Your task to perform on an android device: Turn on the flashlight Image 0: 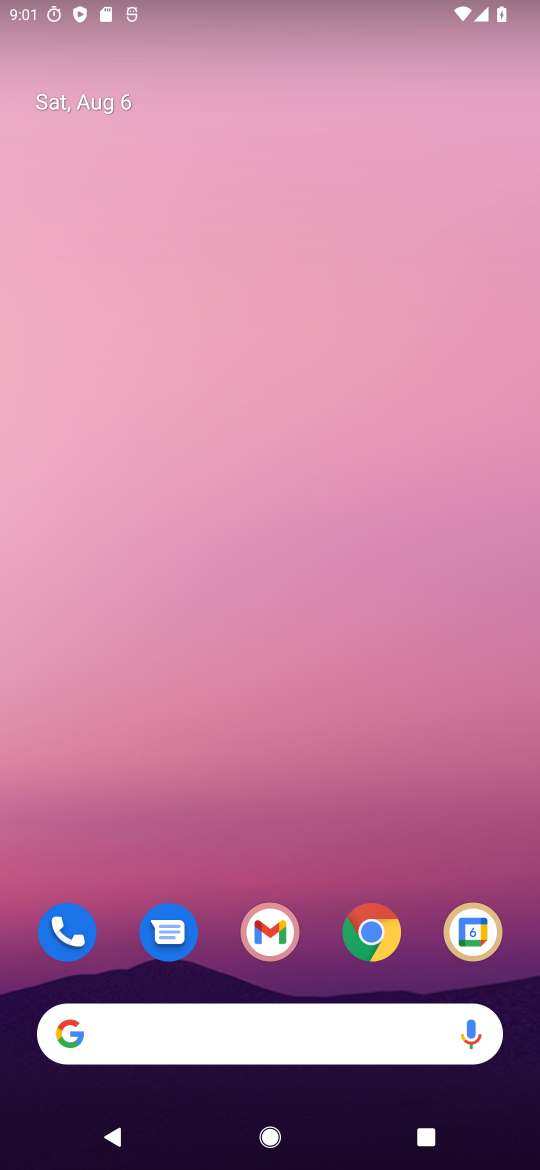
Step 0: drag from (239, 11) to (263, 833)
Your task to perform on an android device: Turn on the flashlight Image 1: 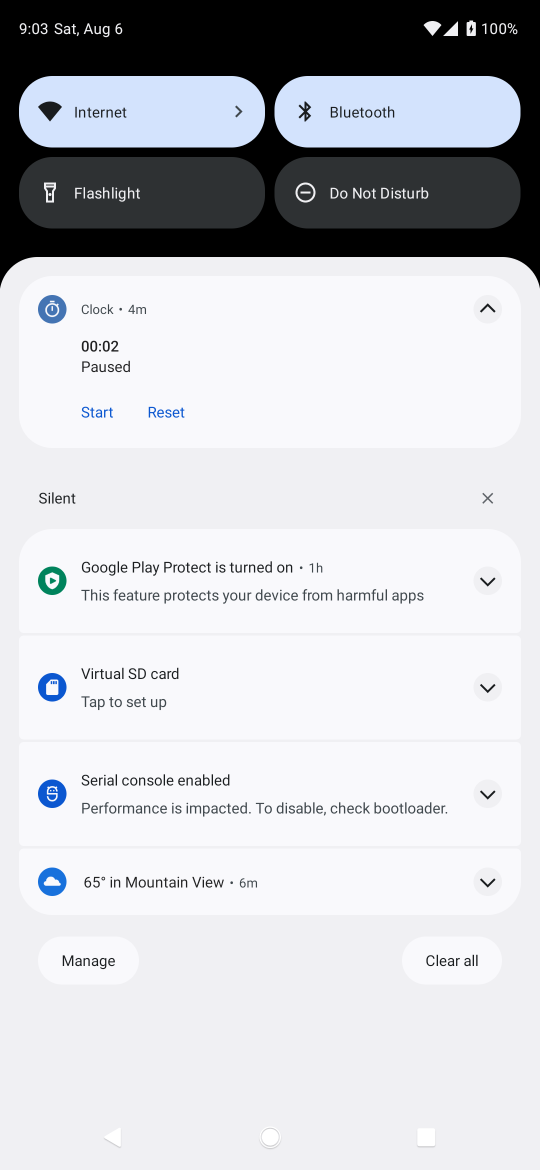
Step 1: task complete